Your task to perform on an android device: When is my next appointment? Image 0: 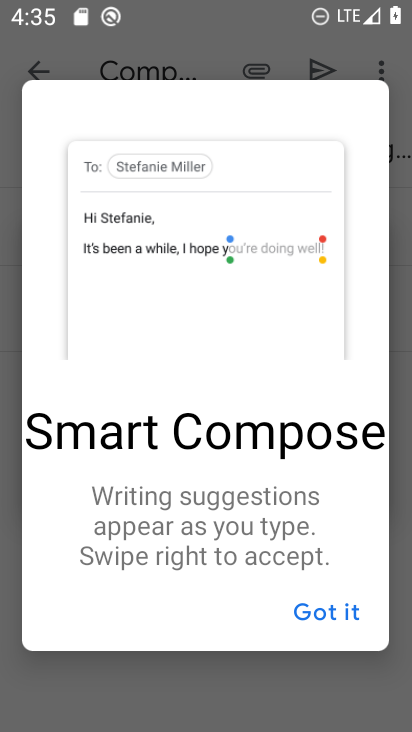
Step 0: press home button
Your task to perform on an android device: When is my next appointment? Image 1: 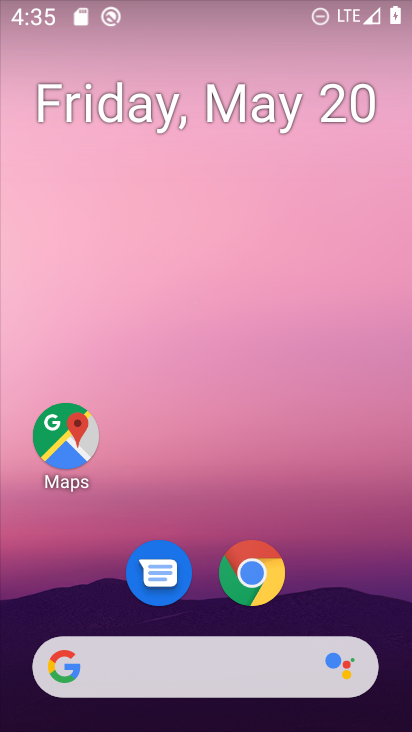
Step 1: drag from (366, 577) to (299, 257)
Your task to perform on an android device: When is my next appointment? Image 2: 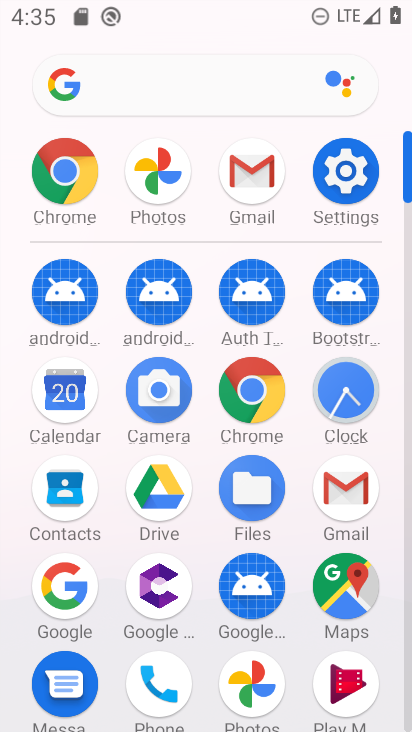
Step 2: click (72, 390)
Your task to perform on an android device: When is my next appointment? Image 3: 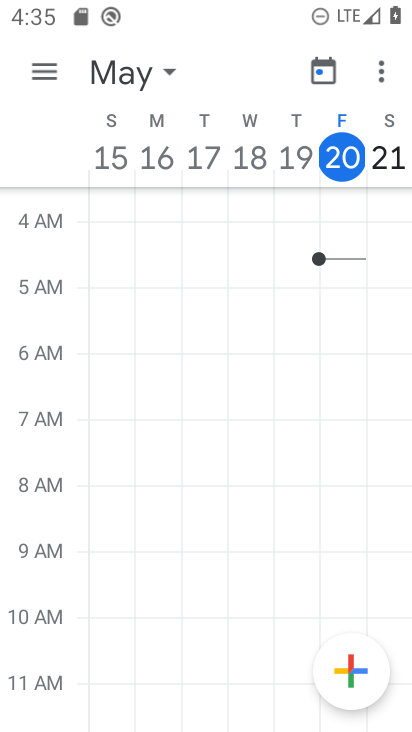
Step 3: click (46, 72)
Your task to perform on an android device: When is my next appointment? Image 4: 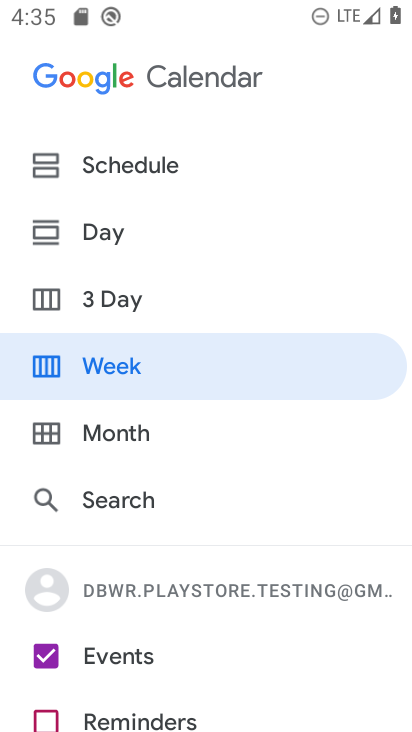
Step 4: click (108, 157)
Your task to perform on an android device: When is my next appointment? Image 5: 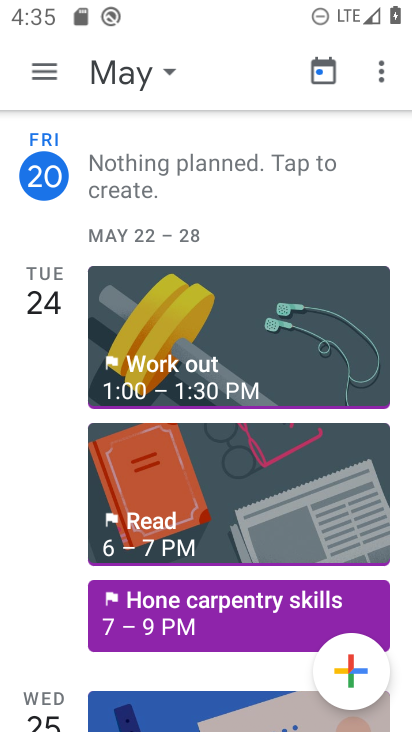
Step 5: task complete